Your task to perform on an android device: turn on the 12-hour format for clock Image 0: 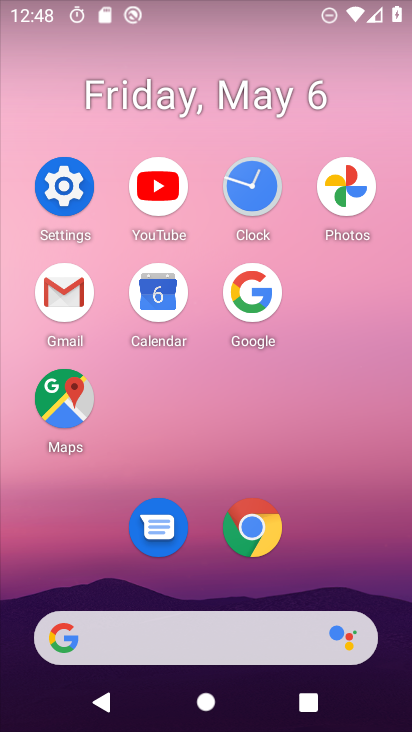
Step 0: click (246, 192)
Your task to perform on an android device: turn on the 12-hour format for clock Image 1: 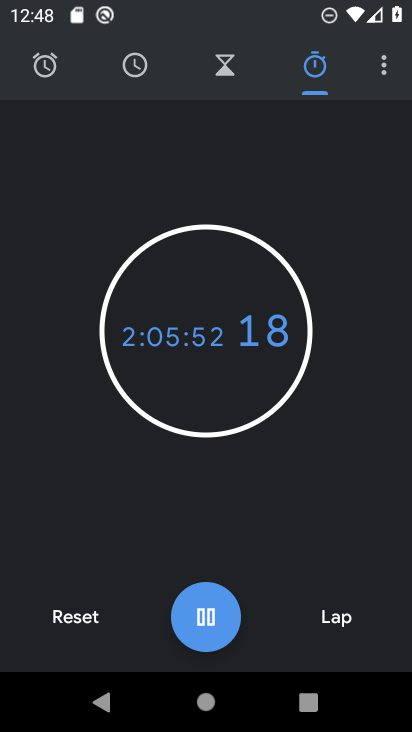
Step 1: click (374, 72)
Your task to perform on an android device: turn on the 12-hour format for clock Image 2: 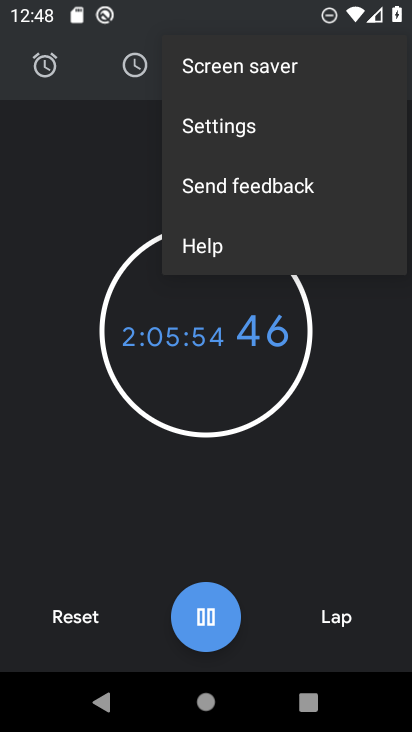
Step 2: click (277, 142)
Your task to perform on an android device: turn on the 12-hour format for clock Image 3: 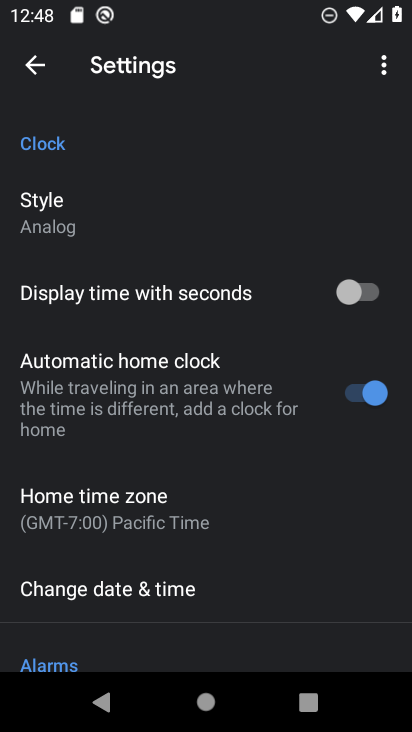
Step 3: drag from (231, 535) to (185, 224)
Your task to perform on an android device: turn on the 12-hour format for clock Image 4: 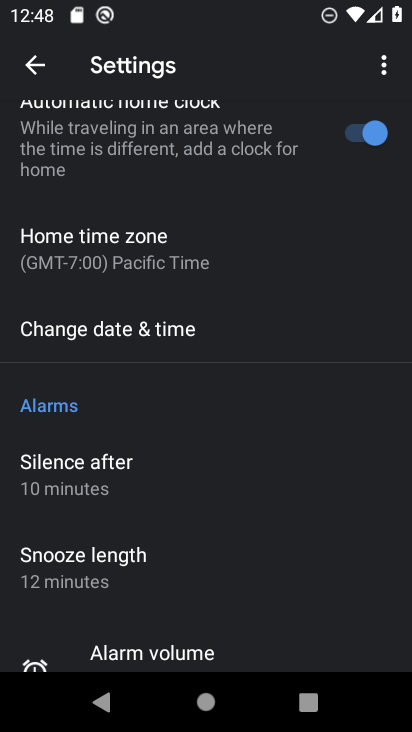
Step 4: drag from (134, 554) to (135, 221)
Your task to perform on an android device: turn on the 12-hour format for clock Image 5: 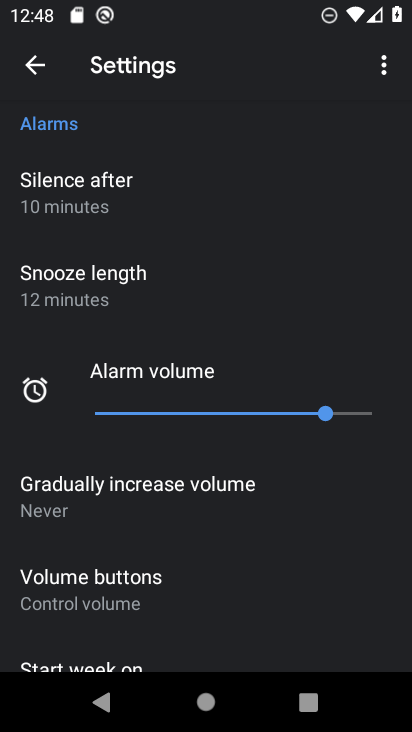
Step 5: drag from (225, 539) to (259, 165)
Your task to perform on an android device: turn on the 12-hour format for clock Image 6: 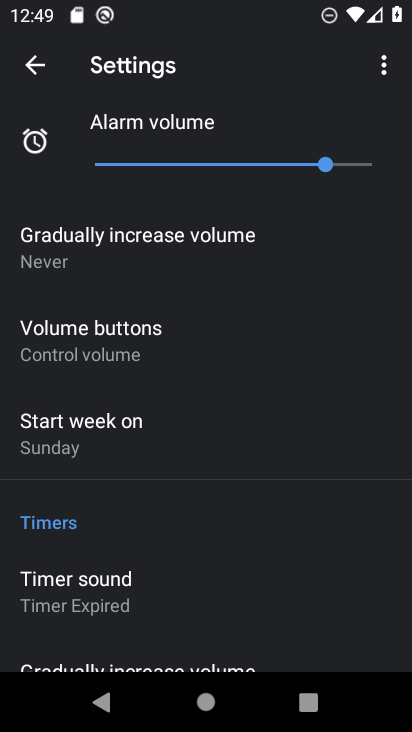
Step 6: drag from (214, 495) to (209, 81)
Your task to perform on an android device: turn on the 12-hour format for clock Image 7: 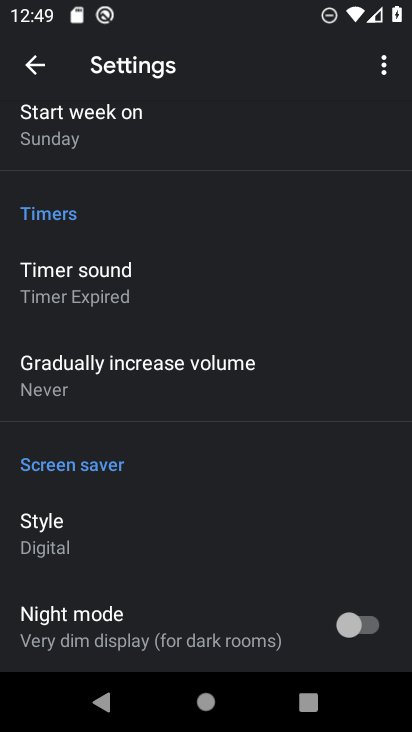
Step 7: drag from (269, 197) to (272, 587)
Your task to perform on an android device: turn on the 12-hour format for clock Image 8: 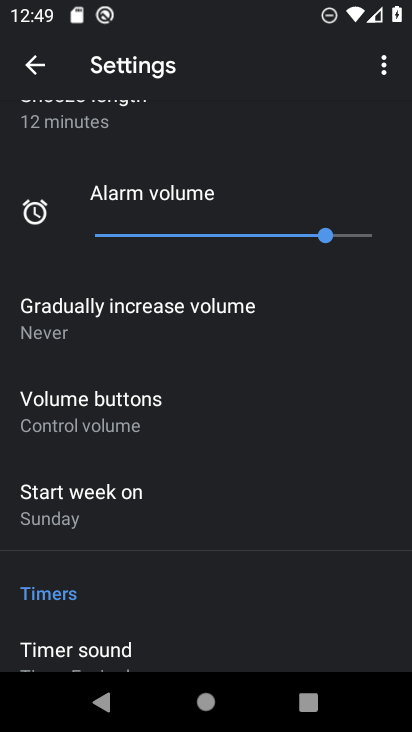
Step 8: drag from (210, 178) to (191, 545)
Your task to perform on an android device: turn on the 12-hour format for clock Image 9: 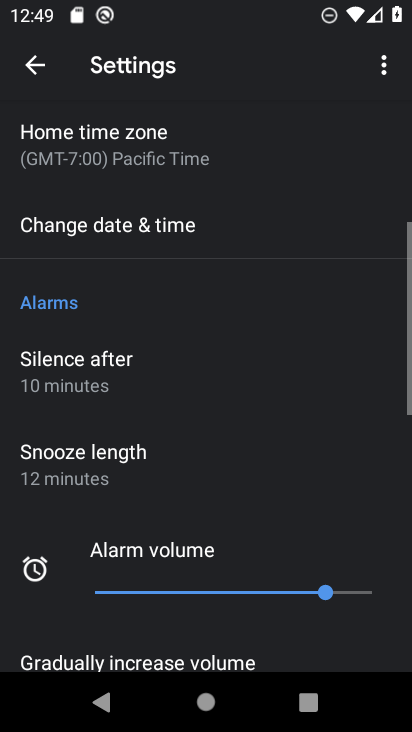
Step 9: drag from (198, 184) to (206, 556)
Your task to perform on an android device: turn on the 12-hour format for clock Image 10: 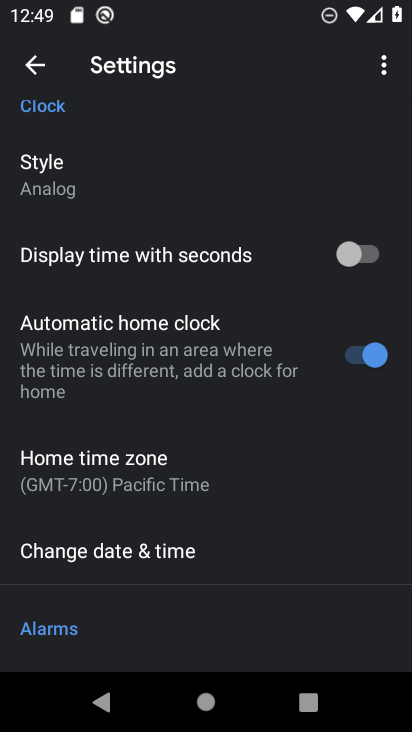
Step 10: click (180, 543)
Your task to perform on an android device: turn on the 12-hour format for clock Image 11: 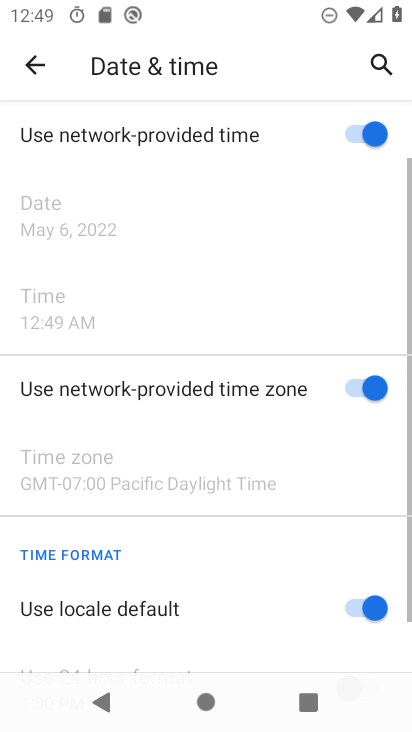
Step 11: task complete